Your task to perform on an android device: Show me the alarms in the clock app Image 0: 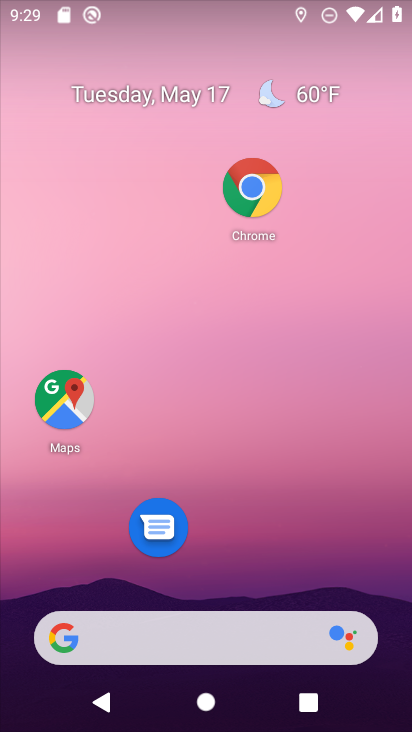
Step 0: drag from (375, 549) to (320, 126)
Your task to perform on an android device: Show me the alarms in the clock app Image 1: 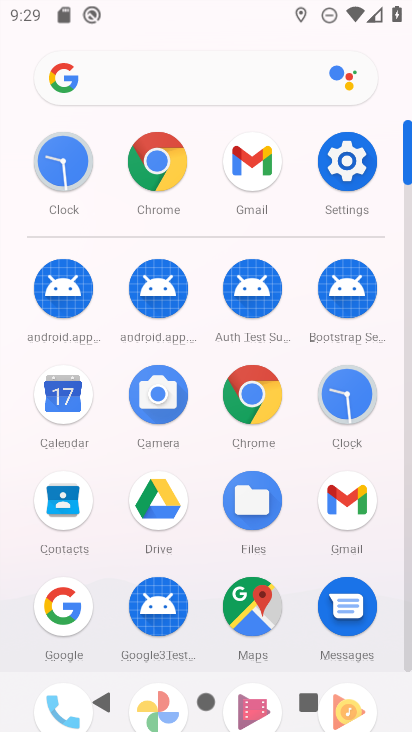
Step 1: click (327, 412)
Your task to perform on an android device: Show me the alarms in the clock app Image 2: 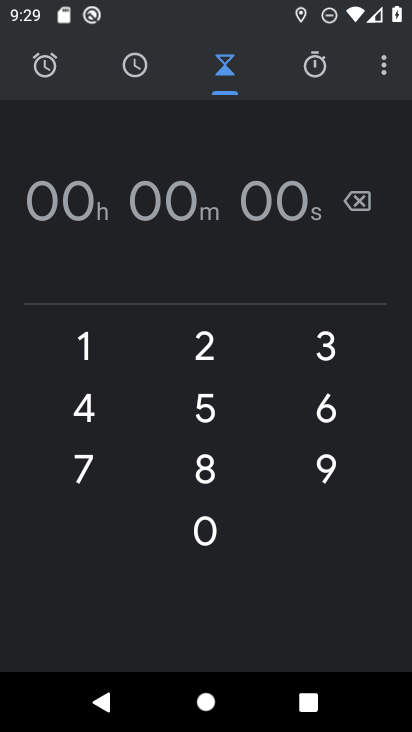
Step 2: click (42, 73)
Your task to perform on an android device: Show me the alarms in the clock app Image 3: 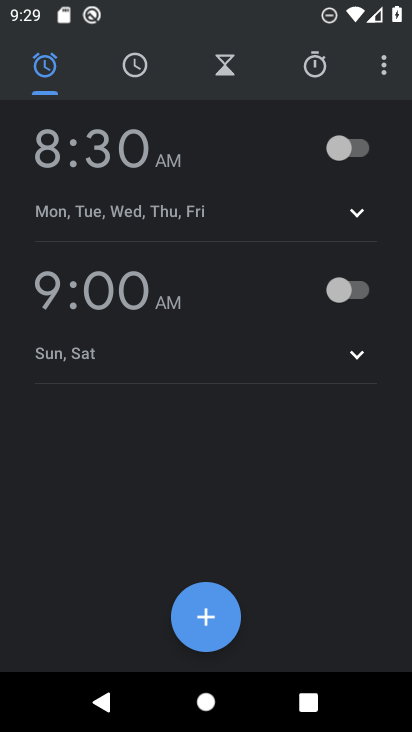
Step 3: task complete